Your task to perform on an android device: toggle data saver in the chrome app Image 0: 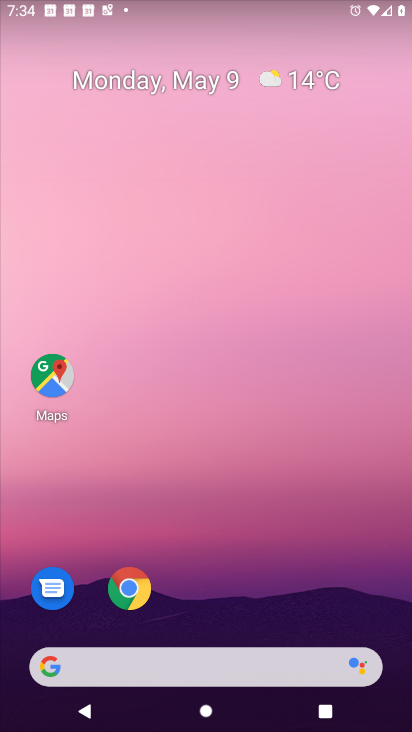
Step 0: drag from (319, 626) to (162, 50)
Your task to perform on an android device: toggle data saver in the chrome app Image 1: 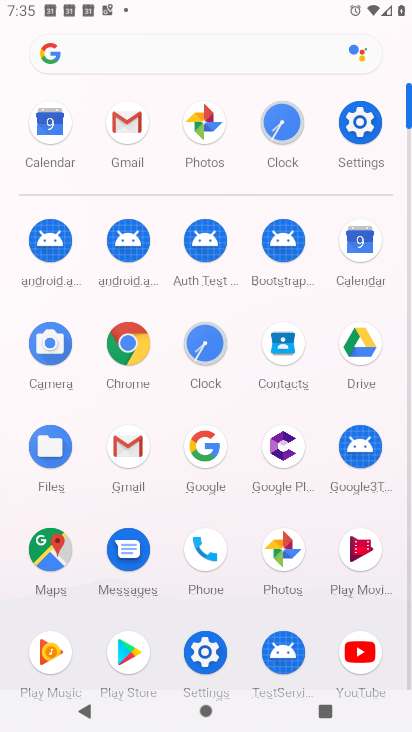
Step 1: click (125, 353)
Your task to perform on an android device: toggle data saver in the chrome app Image 2: 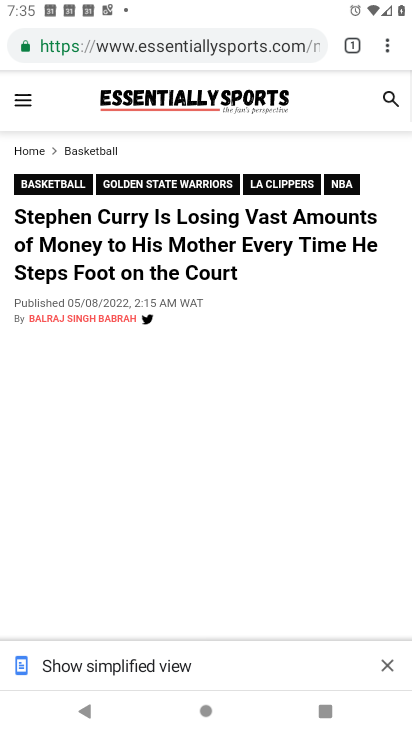
Step 2: press back button
Your task to perform on an android device: toggle data saver in the chrome app Image 3: 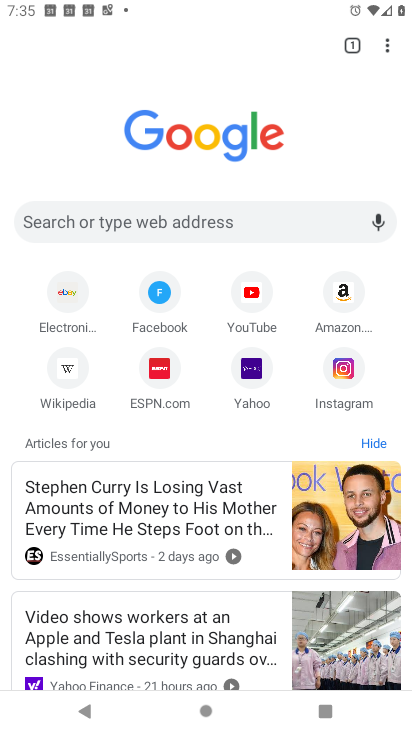
Step 3: click (386, 42)
Your task to perform on an android device: toggle data saver in the chrome app Image 4: 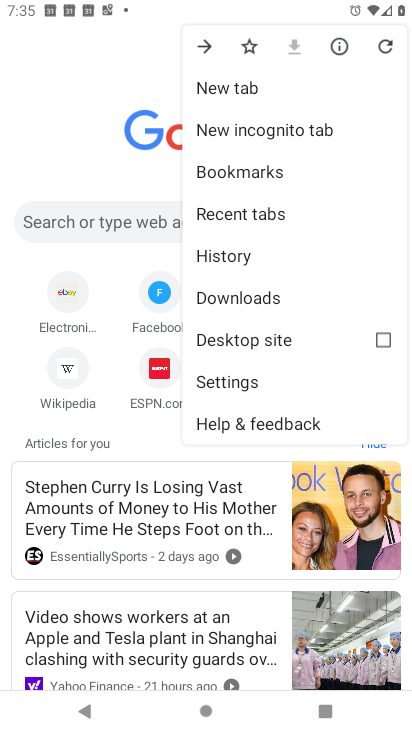
Step 4: click (243, 384)
Your task to perform on an android device: toggle data saver in the chrome app Image 5: 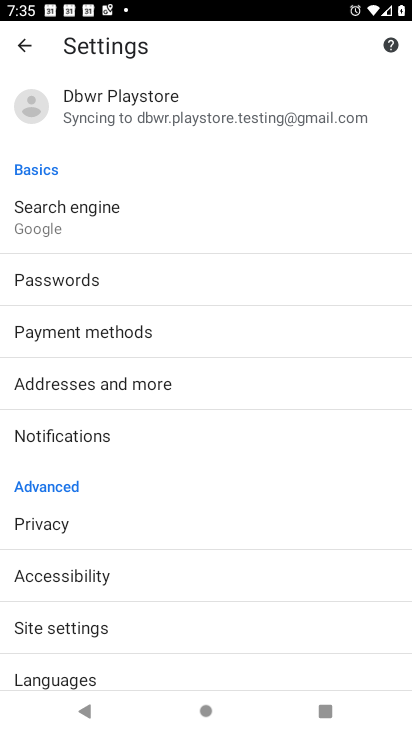
Step 5: drag from (104, 649) to (124, 243)
Your task to perform on an android device: toggle data saver in the chrome app Image 6: 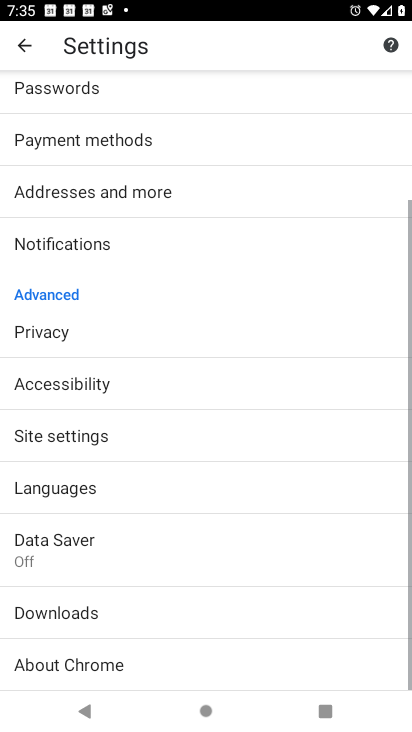
Step 6: click (41, 560)
Your task to perform on an android device: toggle data saver in the chrome app Image 7: 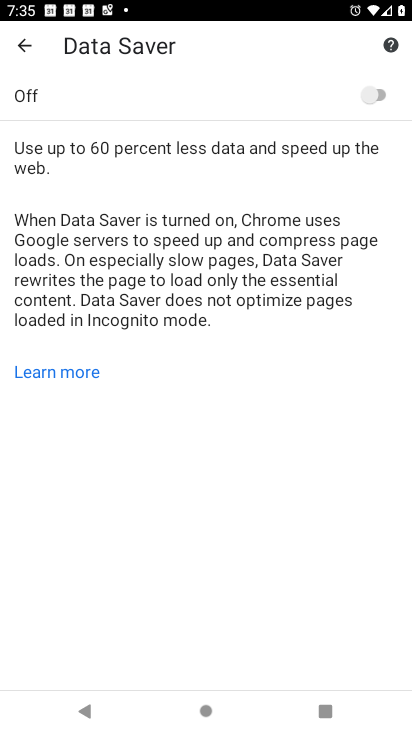
Step 7: click (366, 89)
Your task to perform on an android device: toggle data saver in the chrome app Image 8: 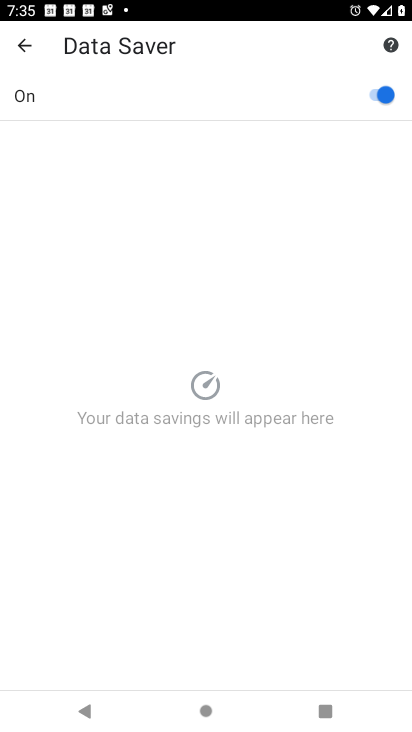
Step 8: task complete